Your task to perform on an android device: turn on wifi Image 0: 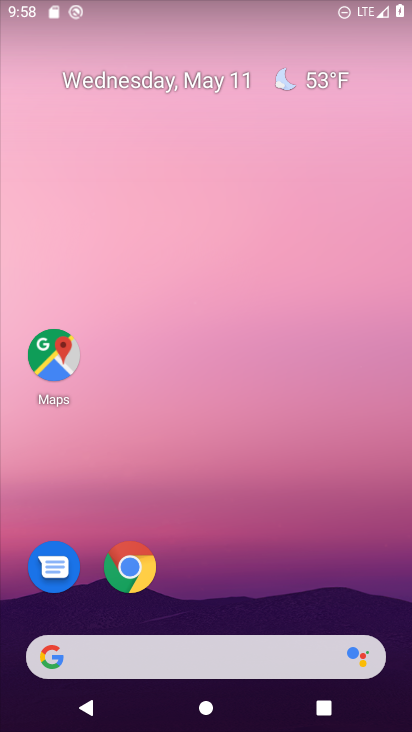
Step 0: drag from (256, 708) to (289, 23)
Your task to perform on an android device: turn on wifi Image 1: 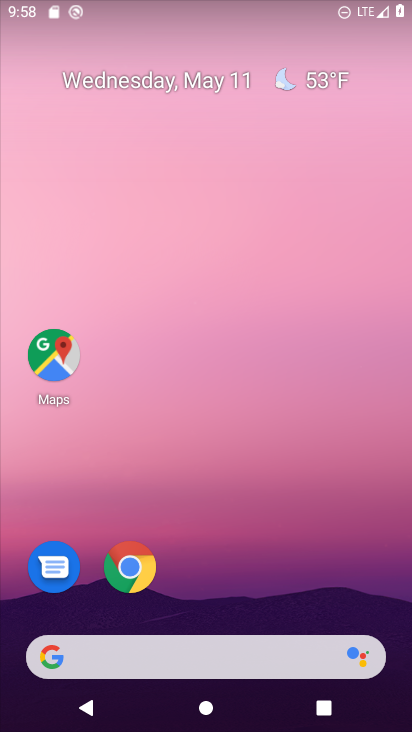
Step 1: drag from (280, 719) to (347, 37)
Your task to perform on an android device: turn on wifi Image 2: 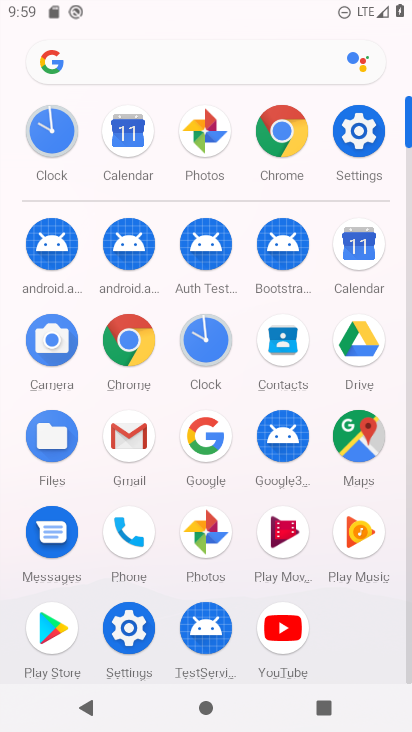
Step 2: click (357, 139)
Your task to perform on an android device: turn on wifi Image 3: 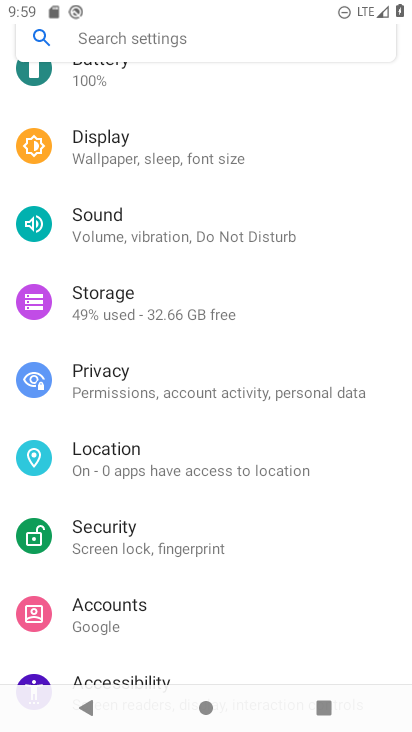
Step 3: drag from (247, 188) to (172, 718)
Your task to perform on an android device: turn on wifi Image 4: 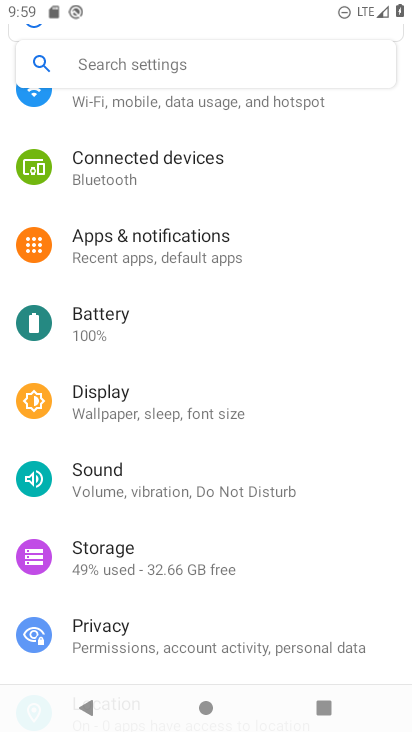
Step 4: click (270, 103)
Your task to perform on an android device: turn on wifi Image 5: 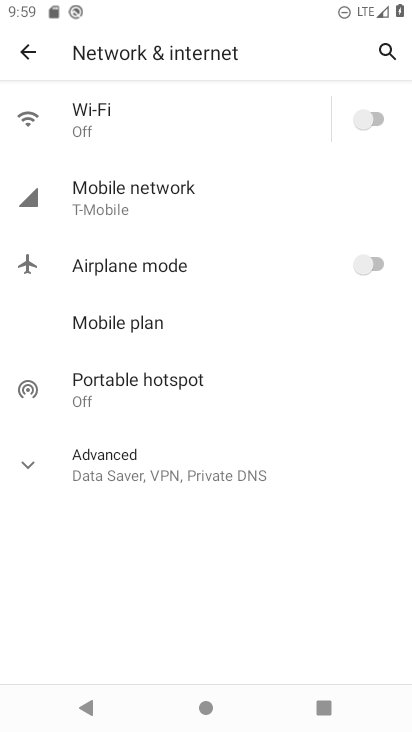
Step 5: click (378, 119)
Your task to perform on an android device: turn on wifi Image 6: 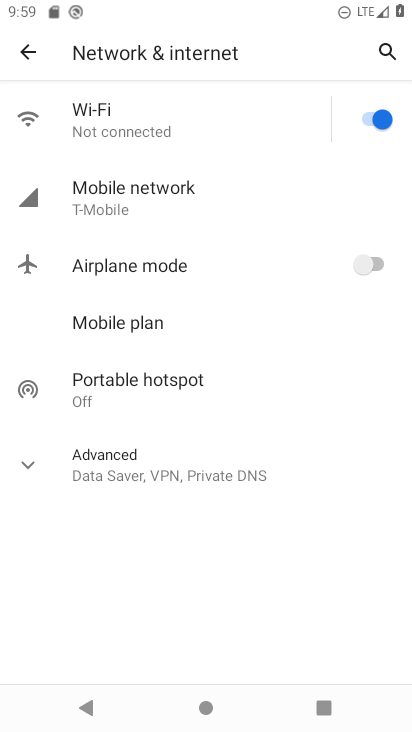
Step 6: task complete